Your task to perform on an android device: Is it going to rain today? Image 0: 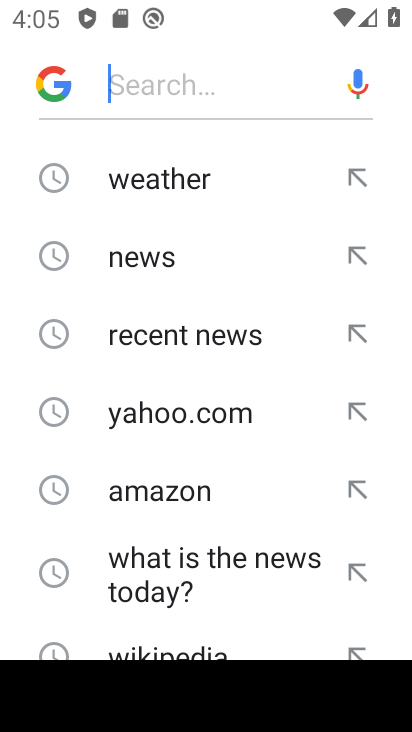
Step 0: type "is it going to rain today"
Your task to perform on an android device: Is it going to rain today? Image 1: 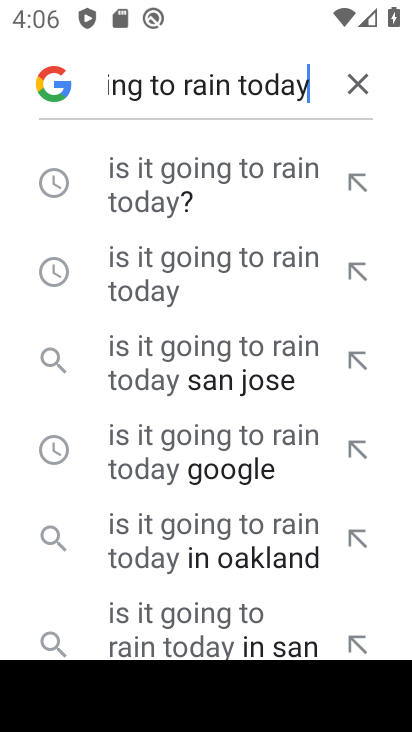
Step 1: click (178, 203)
Your task to perform on an android device: Is it going to rain today? Image 2: 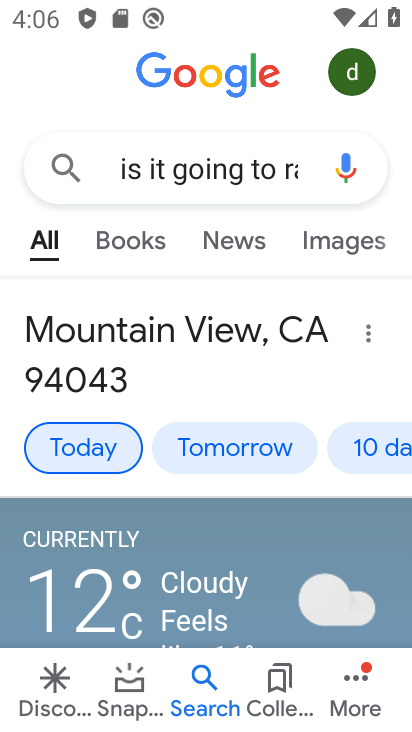
Step 2: task complete